Your task to perform on an android device: delete location history Image 0: 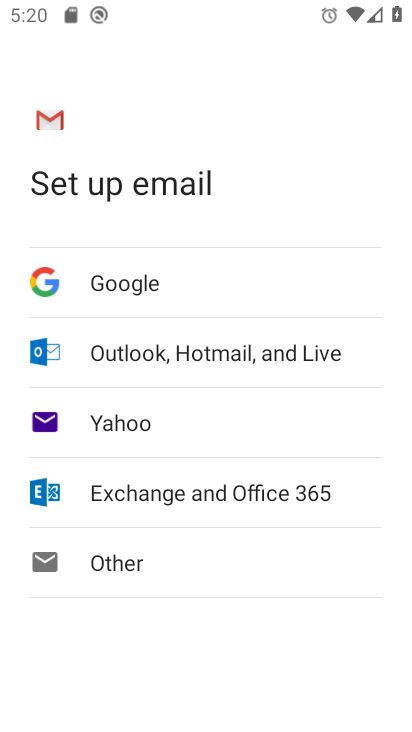
Step 0: press home button
Your task to perform on an android device: delete location history Image 1: 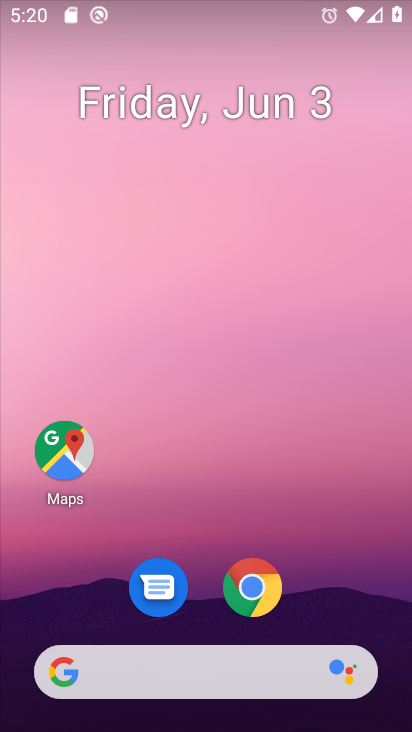
Step 1: drag from (120, 723) to (129, 193)
Your task to perform on an android device: delete location history Image 2: 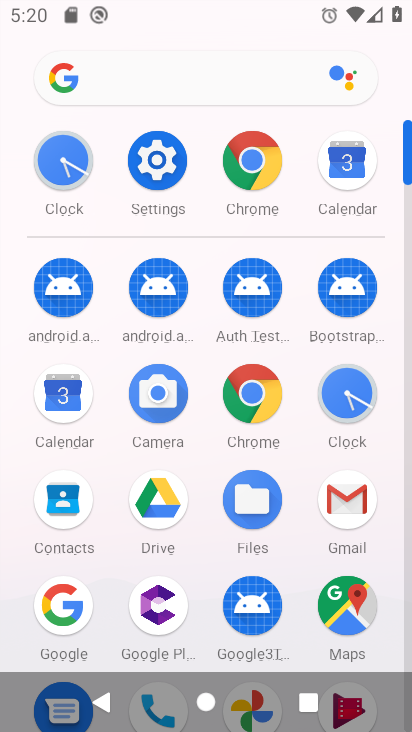
Step 2: click (170, 171)
Your task to perform on an android device: delete location history Image 3: 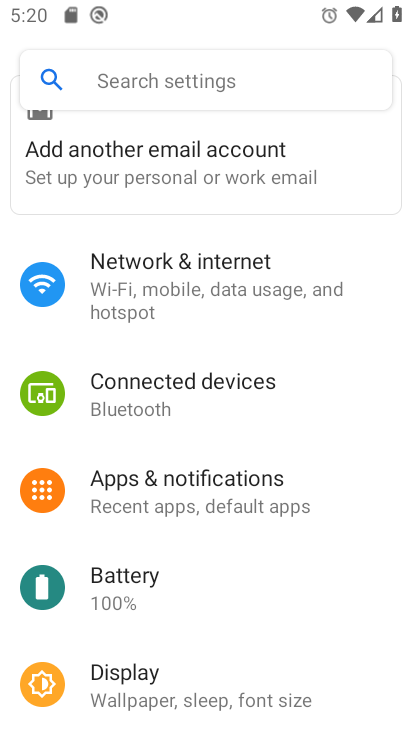
Step 3: drag from (245, 611) to (157, 96)
Your task to perform on an android device: delete location history Image 4: 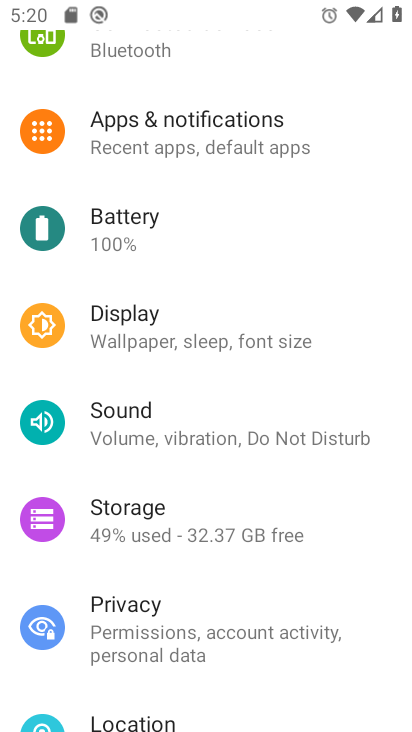
Step 4: click (118, 717)
Your task to perform on an android device: delete location history Image 5: 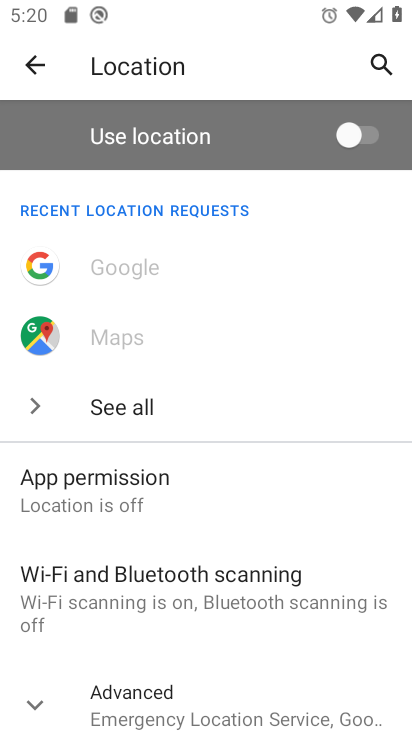
Step 5: click (180, 693)
Your task to perform on an android device: delete location history Image 6: 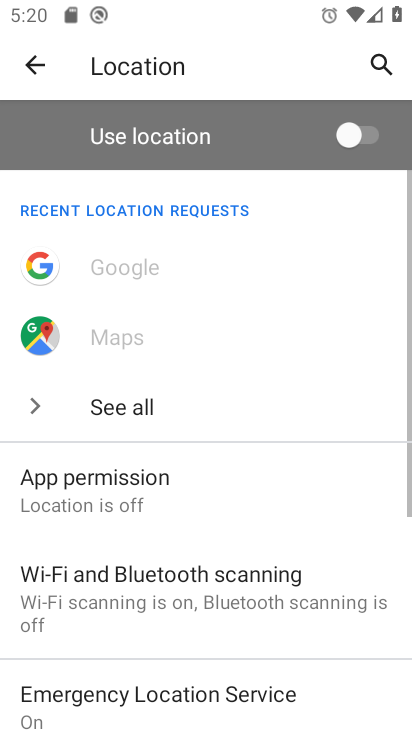
Step 6: drag from (327, 617) to (378, 171)
Your task to perform on an android device: delete location history Image 7: 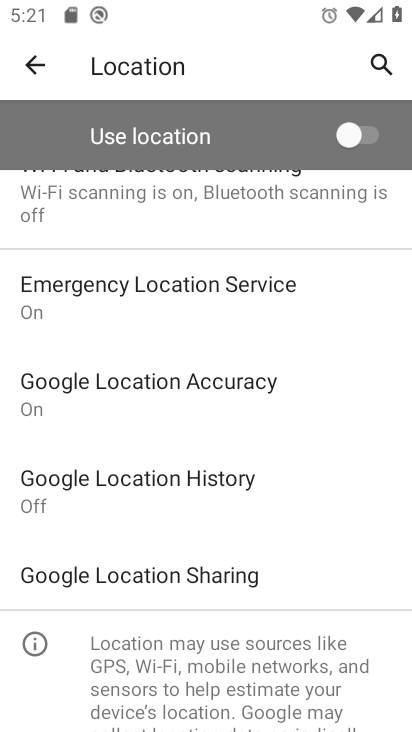
Step 7: click (201, 482)
Your task to perform on an android device: delete location history Image 8: 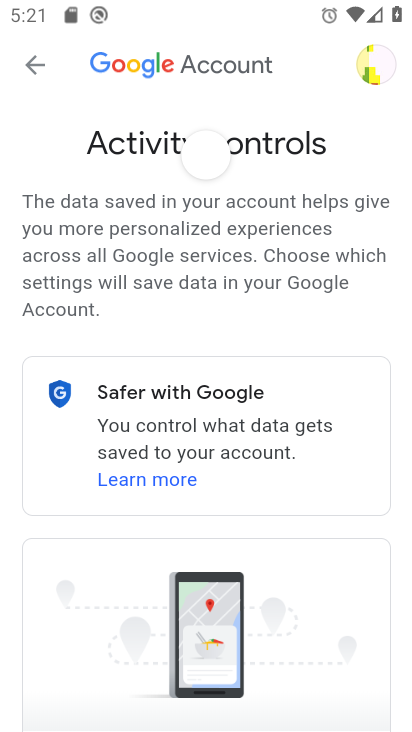
Step 8: drag from (119, 515) to (130, 117)
Your task to perform on an android device: delete location history Image 9: 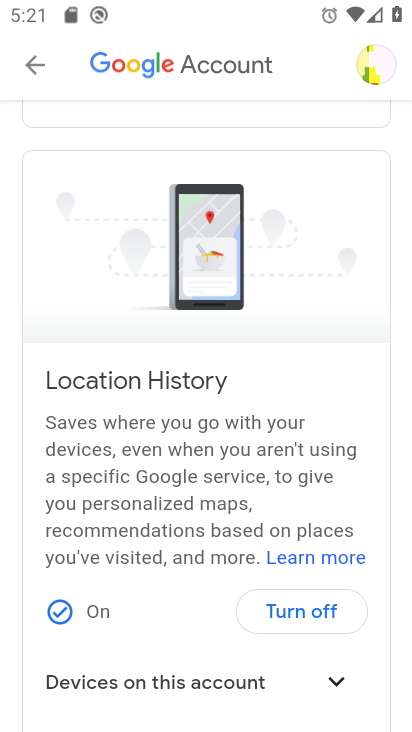
Step 9: drag from (301, 660) to (333, 267)
Your task to perform on an android device: delete location history Image 10: 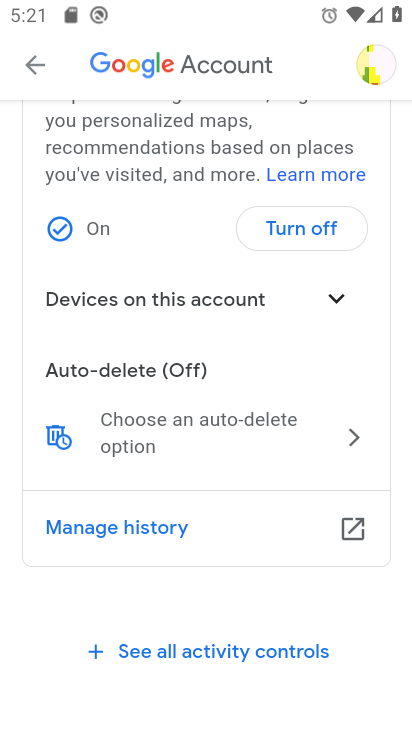
Step 10: click (128, 450)
Your task to perform on an android device: delete location history Image 11: 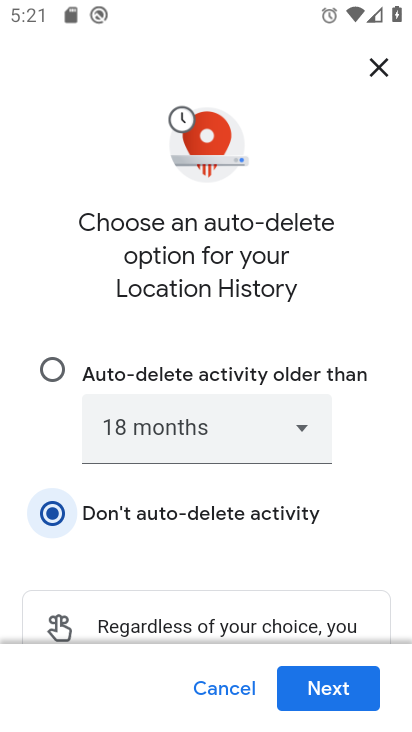
Step 11: click (228, 409)
Your task to perform on an android device: delete location history Image 12: 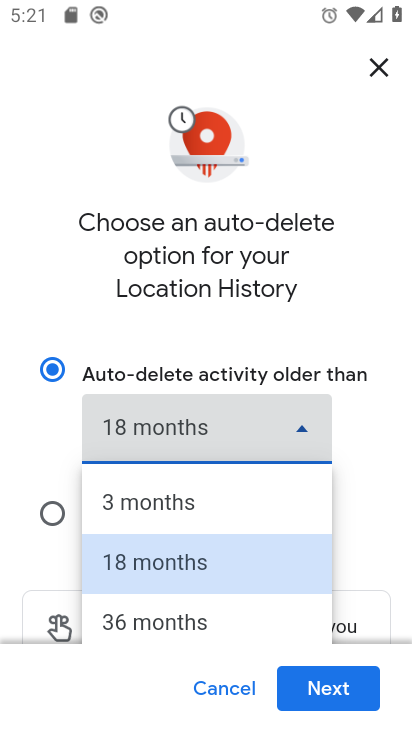
Step 12: click (222, 506)
Your task to perform on an android device: delete location history Image 13: 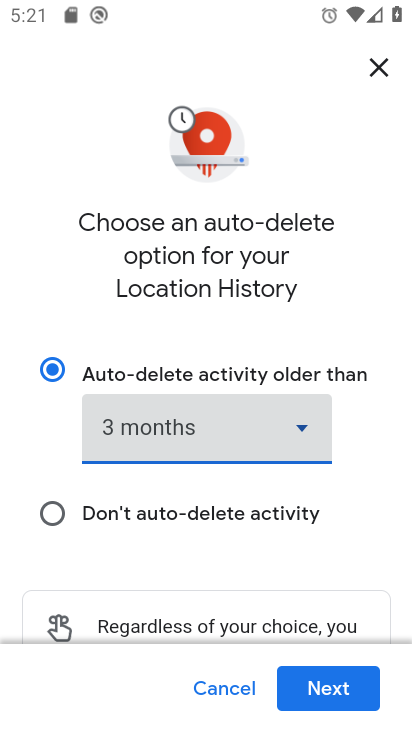
Step 13: click (339, 686)
Your task to perform on an android device: delete location history Image 14: 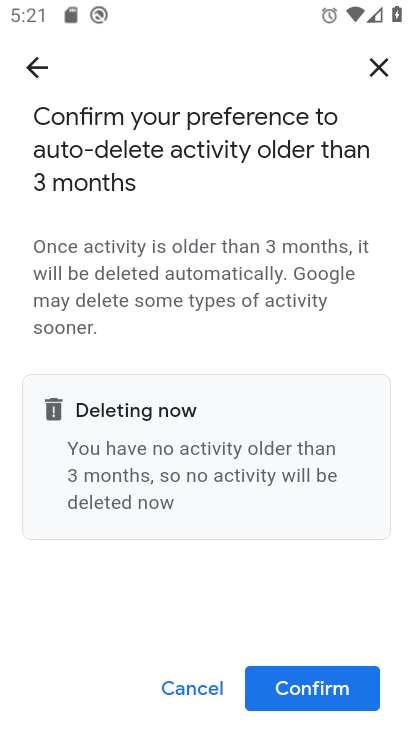
Step 14: click (295, 683)
Your task to perform on an android device: delete location history Image 15: 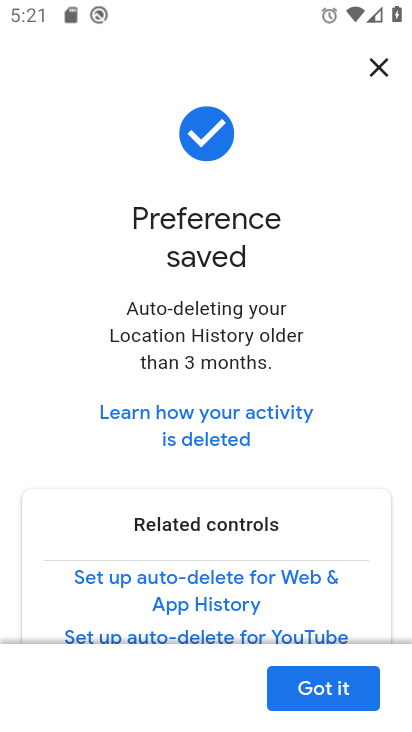
Step 15: click (321, 697)
Your task to perform on an android device: delete location history Image 16: 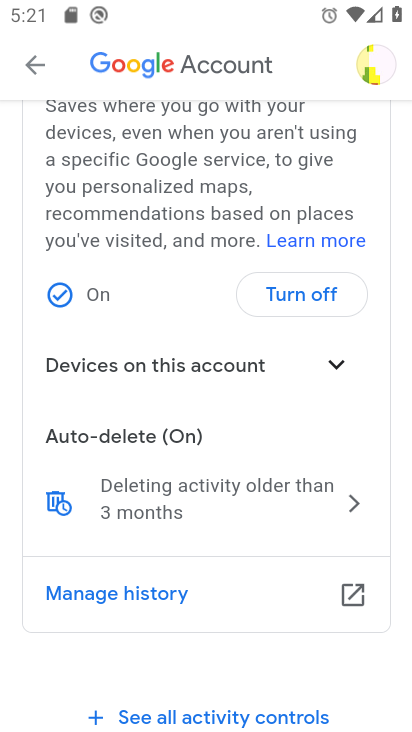
Step 16: task complete